Your task to perform on an android device: turn off location history Image 0: 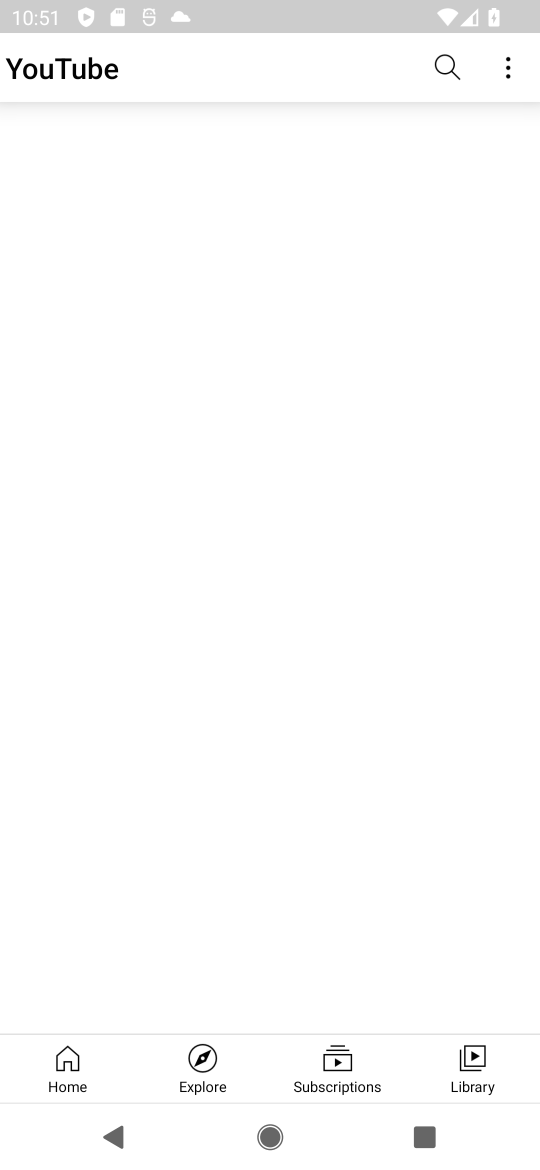
Step 0: press home button
Your task to perform on an android device: turn off location history Image 1: 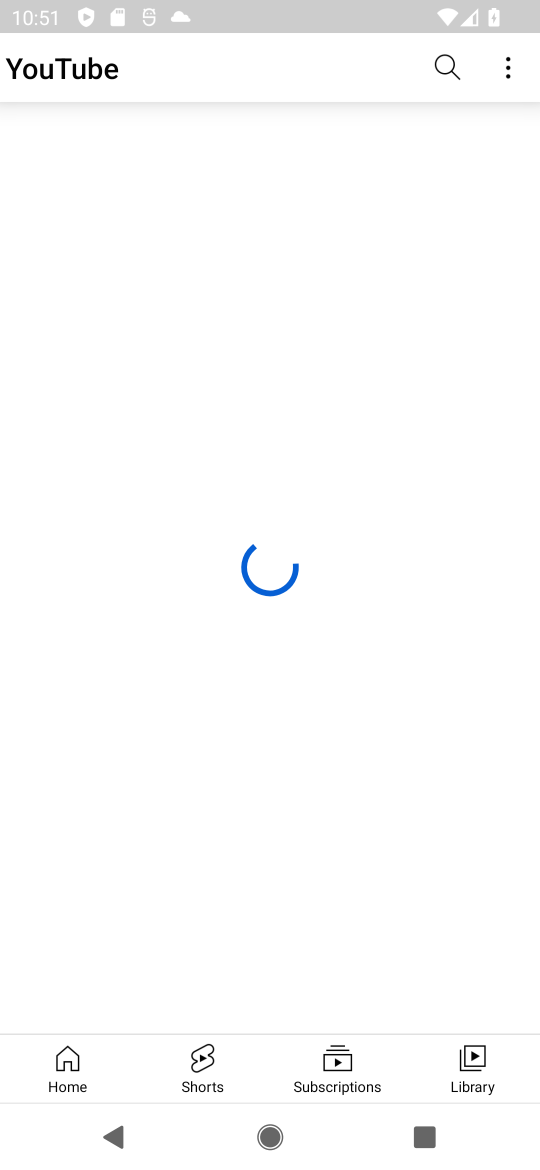
Step 1: press home button
Your task to perform on an android device: turn off location history Image 2: 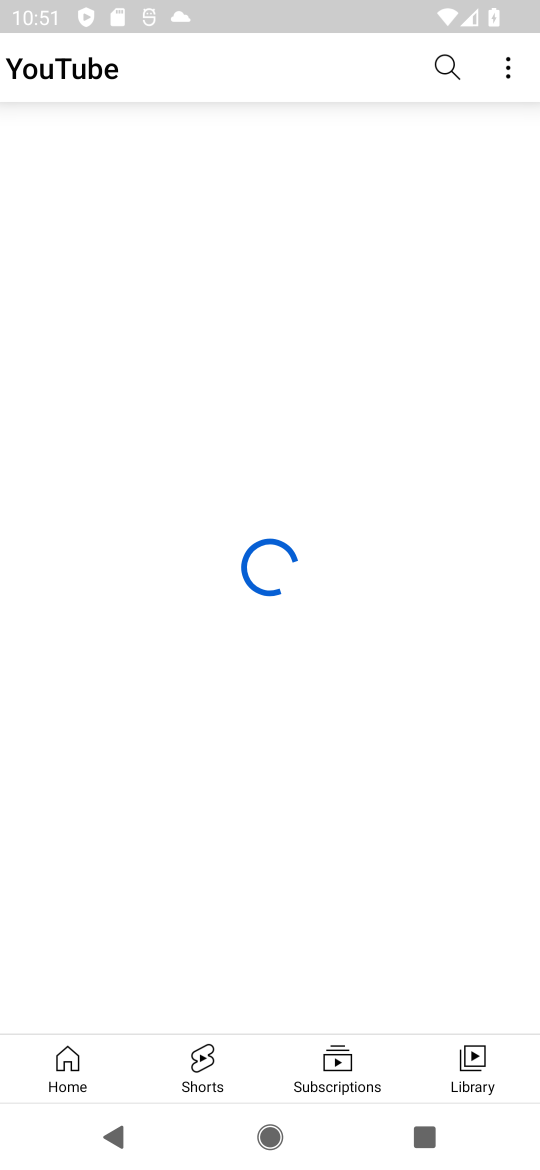
Step 2: press home button
Your task to perform on an android device: turn off location history Image 3: 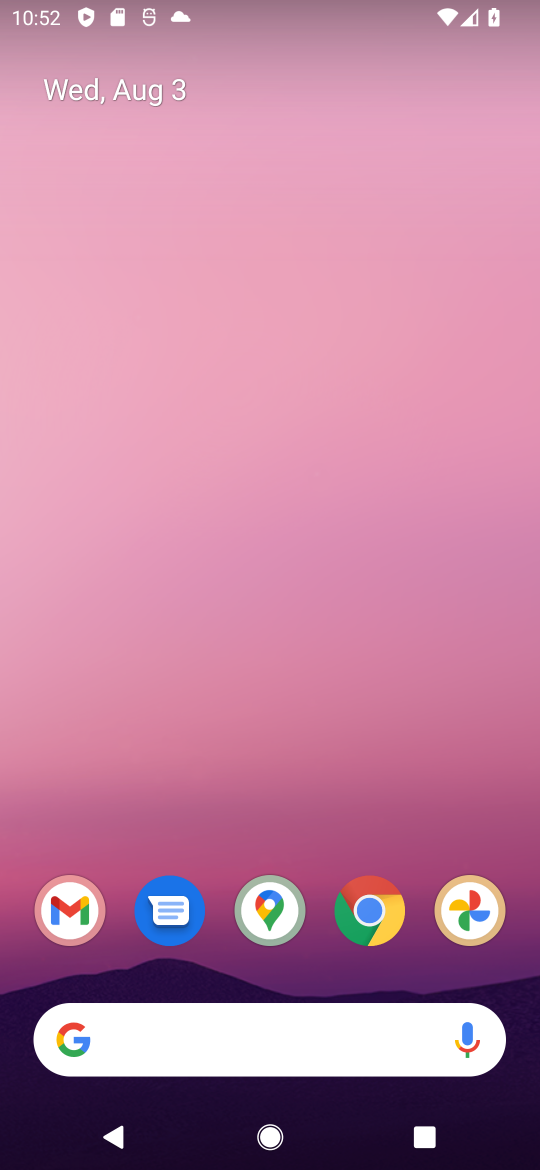
Step 3: drag from (321, 856) to (301, 11)
Your task to perform on an android device: turn off location history Image 4: 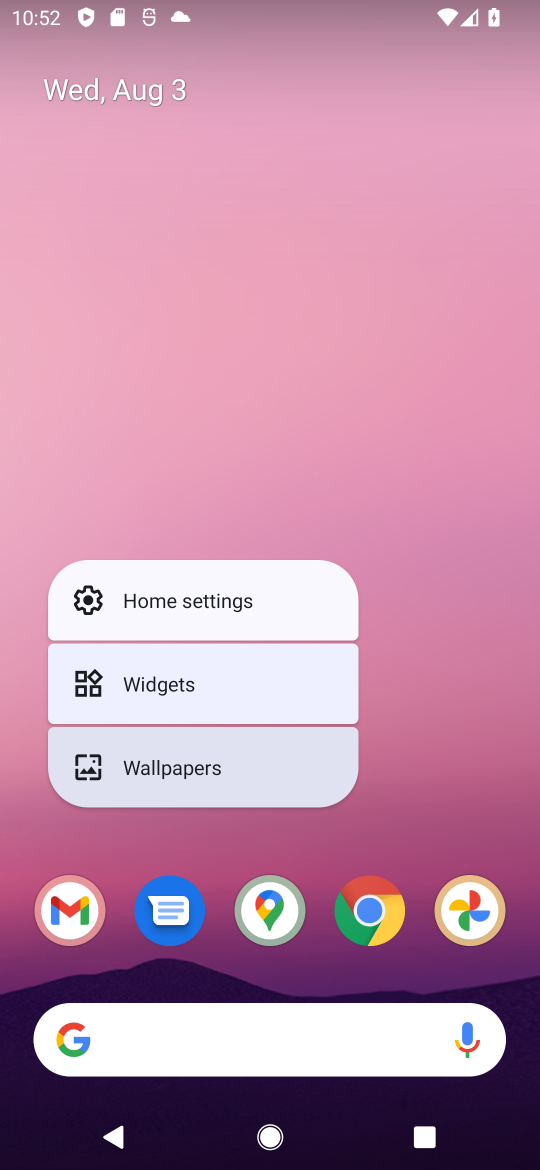
Step 4: click (419, 789)
Your task to perform on an android device: turn off location history Image 5: 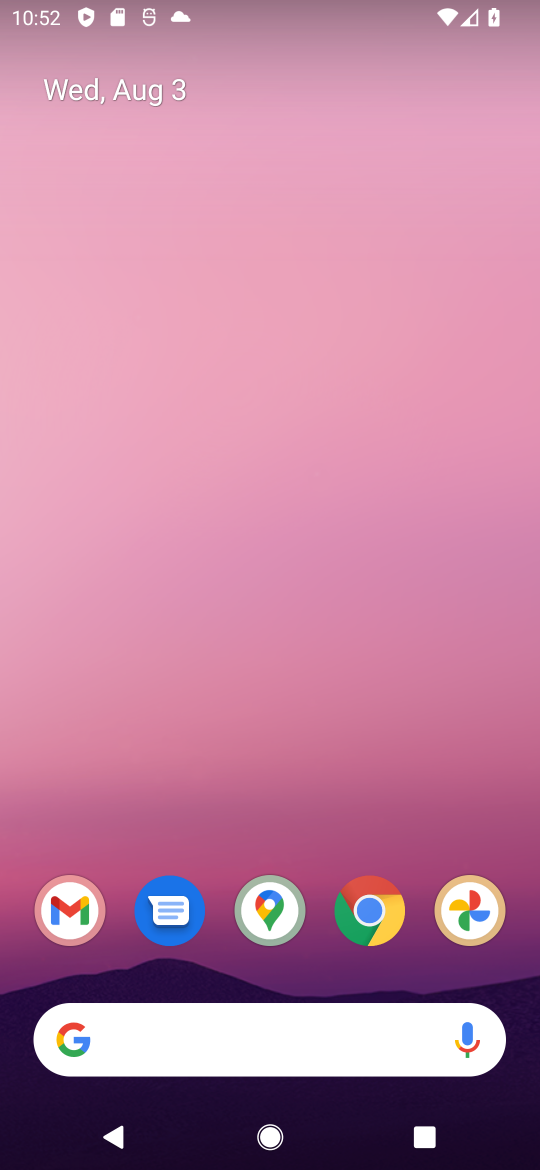
Step 5: drag from (313, 880) to (288, 99)
Your task to perform on an android device: turn off location history Image 6: 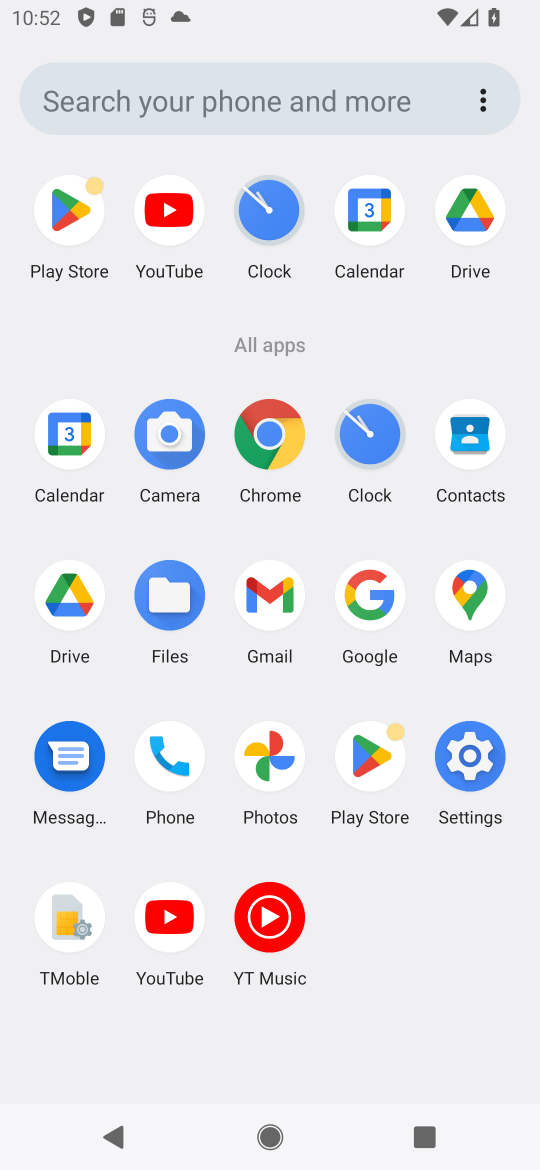
Step 6: click (477, 743)
Your task to perform on an android device: turn off location history Image 7: 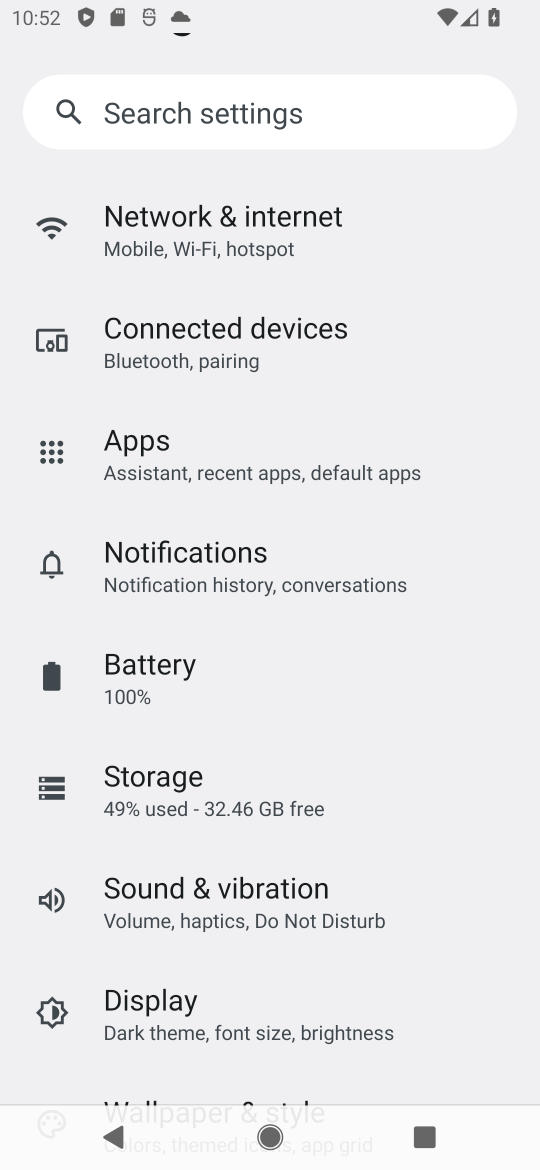
Step 7: drag from (304, 1004) to (324, 326)
Your task to perform on an android device: turn off location history Image 8: 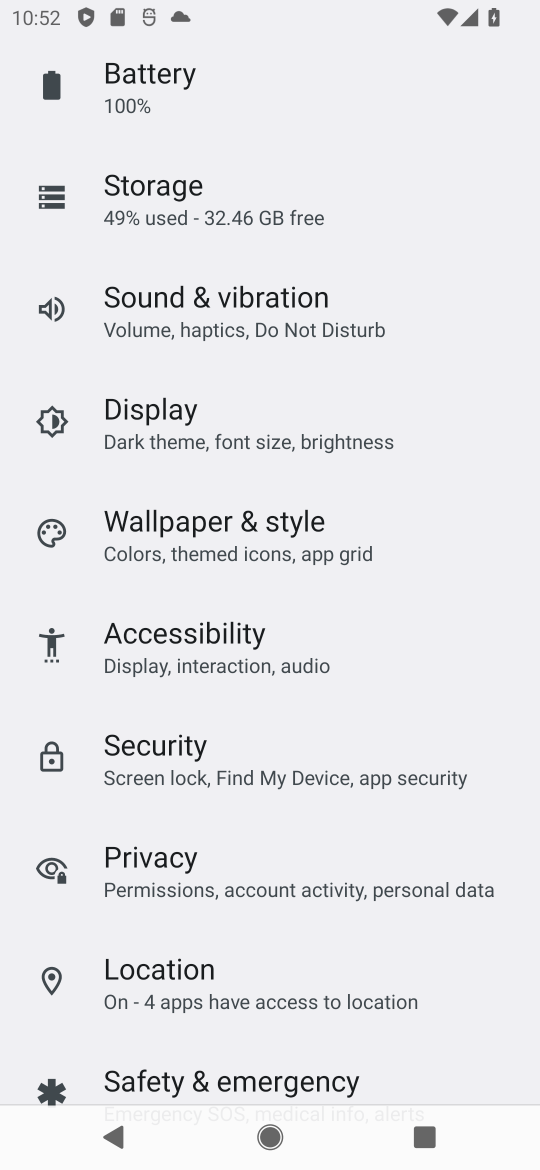
Step 8: click (256, 991)
Your task to perform on an android device: turn off location history Image 9: 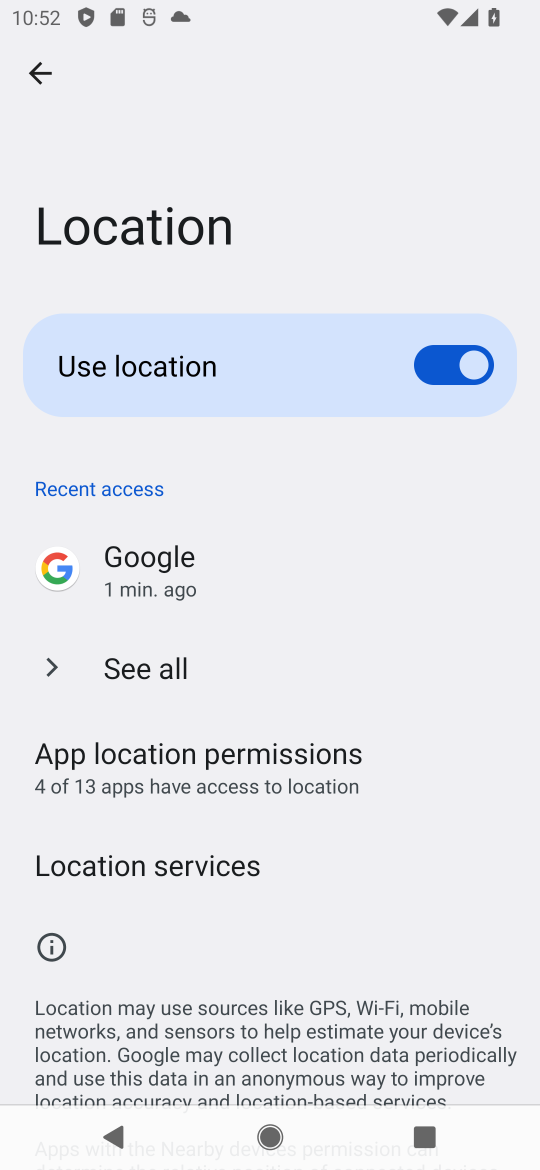
Step 9: click (237, 870)
Your task to perform on an android device: turn off location history Image 10: 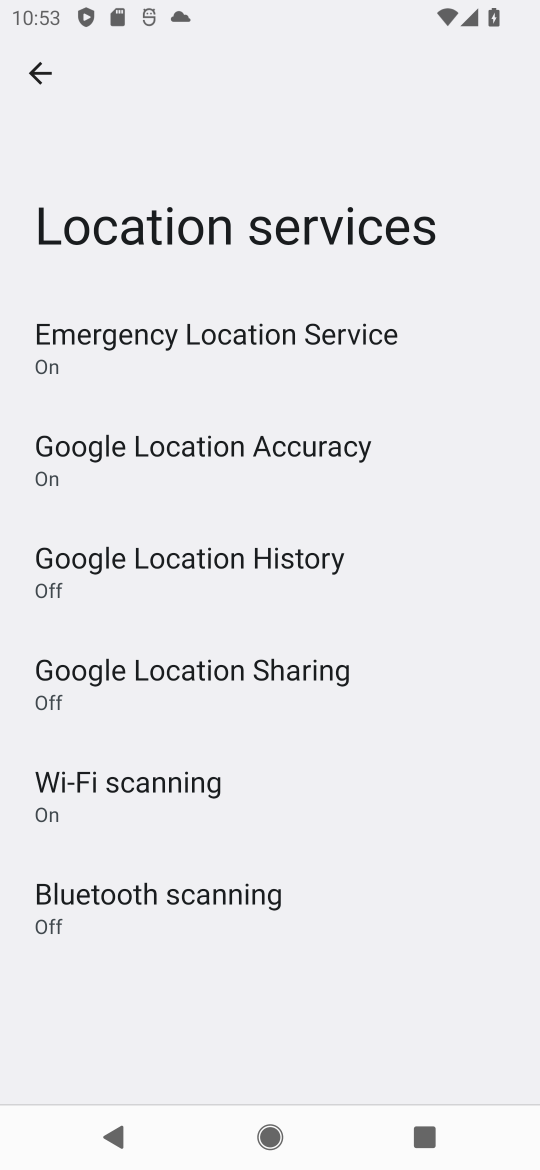
Step 10: click (238, 571)
Your task to perform on an android device: turn off location history Image 11: 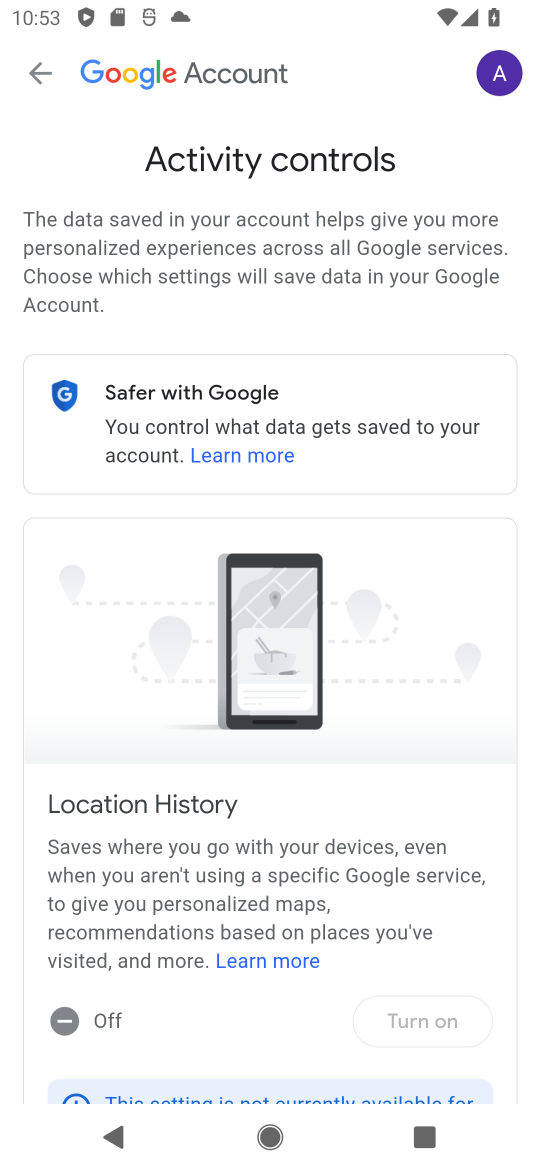
Step 11: task complete